Your task to perform on an android device: Open calendar and show me the third week of next month Image 0: 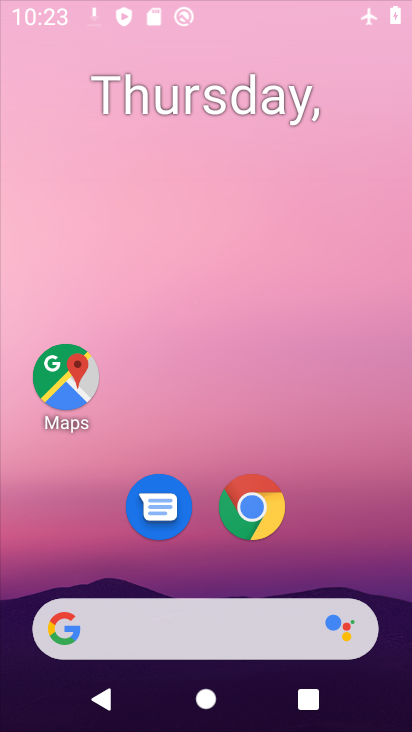
Step 0: click (298, 69)
Your task to perform on an android device: Open calendar and show me the third week of next month Image 1: 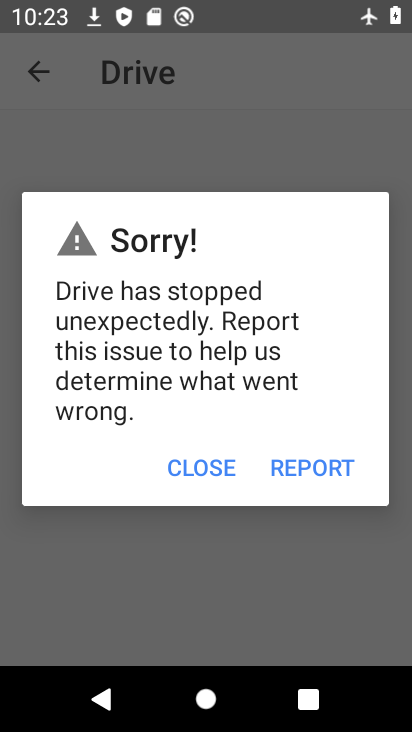
Step 1: press back button
Your task to perform on an android device: Open calendar and show me the third week of next month Image 2: 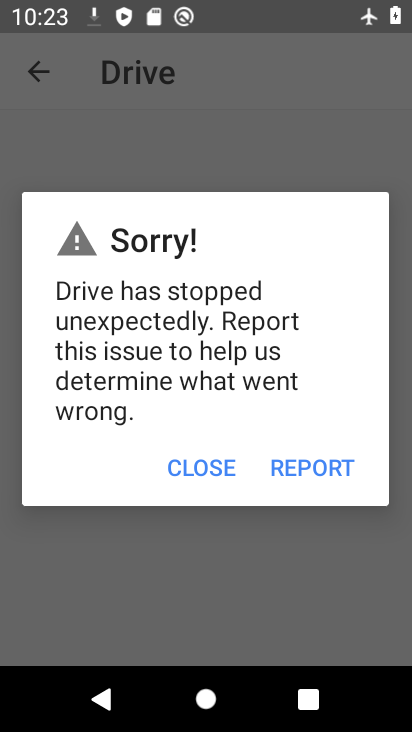
Step 2: press home button
Your task to perform on an android device: Open calendar and show me the third week of next month Image 3: 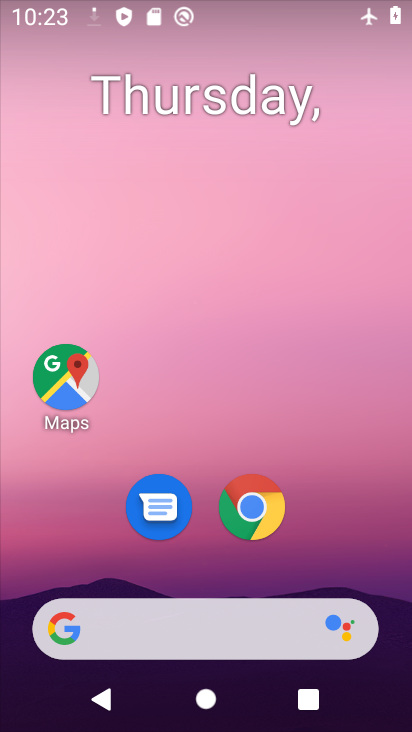
Step 3: drag from (353, 539) to (320, 17)
Your task to perform on an android device: Open calendar and show me the third week of next month Image 4: 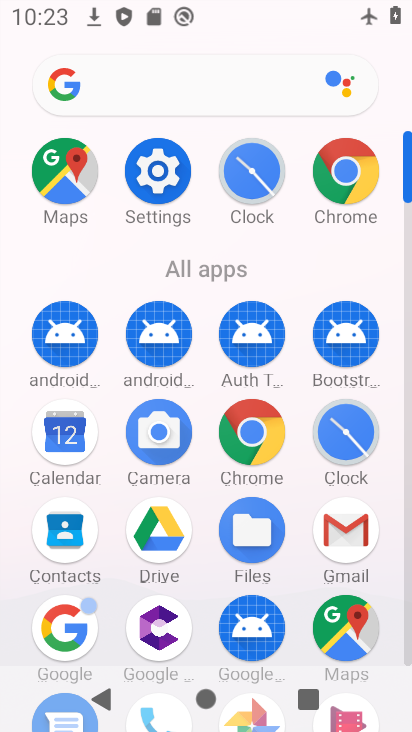
Step 4: drag from (10, 499) to (18, 256)
Your task to perform on an android device: Open calendar and show me the third week of next month Image 5: 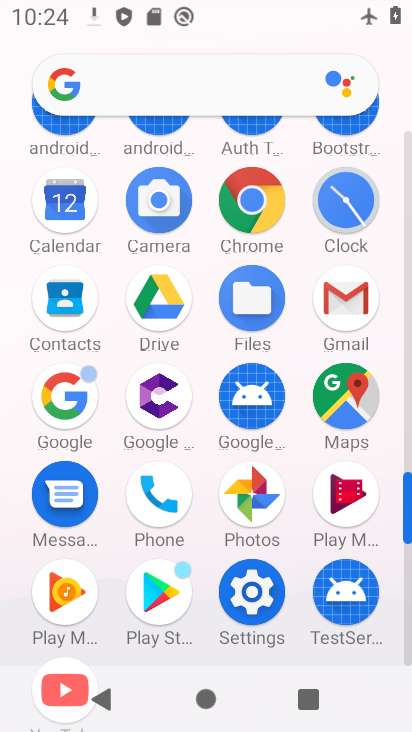
Step 5: click (60, 197)
Your task to perform on an android device: Open calendar and show me the third week of next month Image 6: 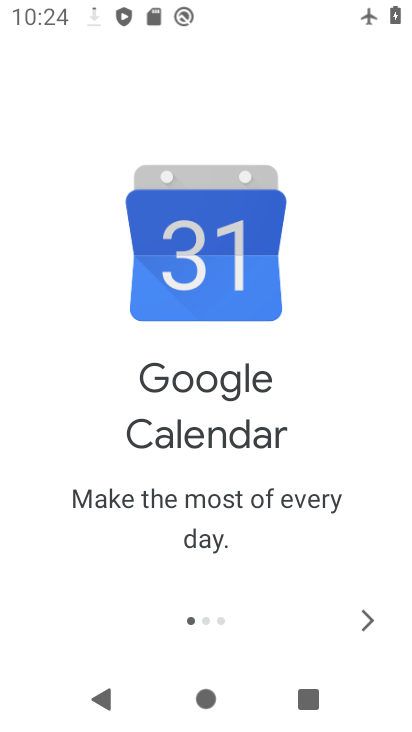
Step 6: click (363, 618)
Your task to perform on an android device: Open calendar and show me the third week of next month Image 7: 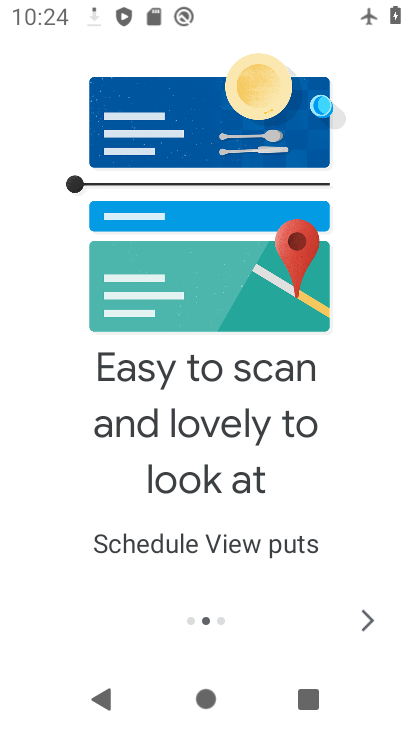
Step 7: click (358, 618)
Your task to perform on an android device: Open calendar and show me the third week of next month Image 8: 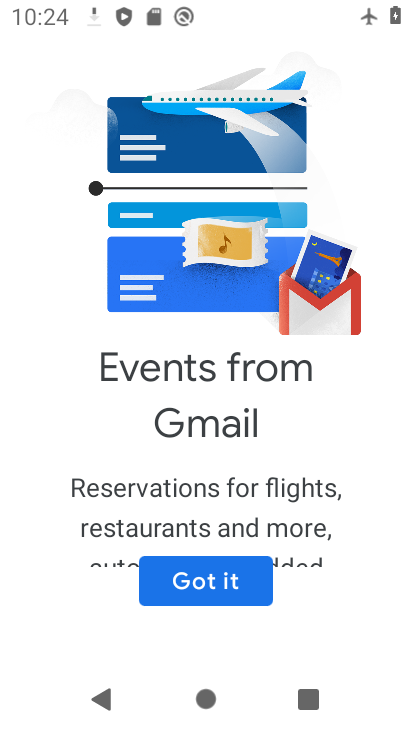
Step 8: click (358, 618)
Your task to perform on an android device: Open calendar and show me the third week of next month Image 9: 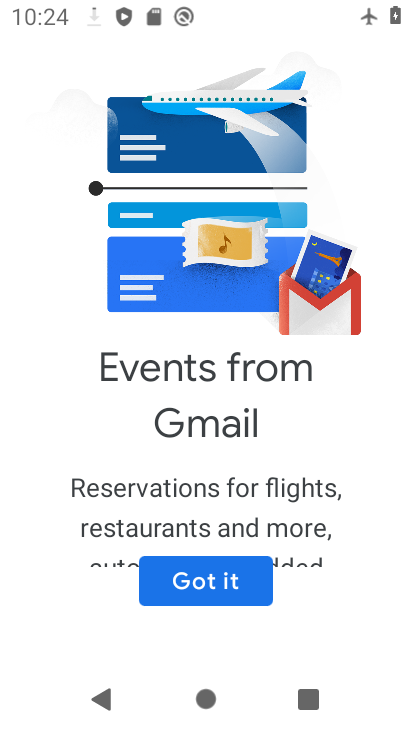
Step 9: click (217, 576)
Your task to perform on an android device: Open calendar and show me the third week of next month Image 10: 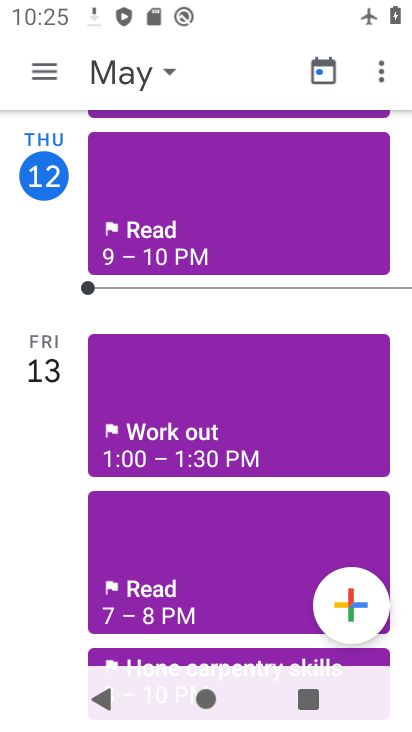
Step 10: click (114, 67)
Your task to perform on an android device: Open calendar and show me the third week of next month Image 11: 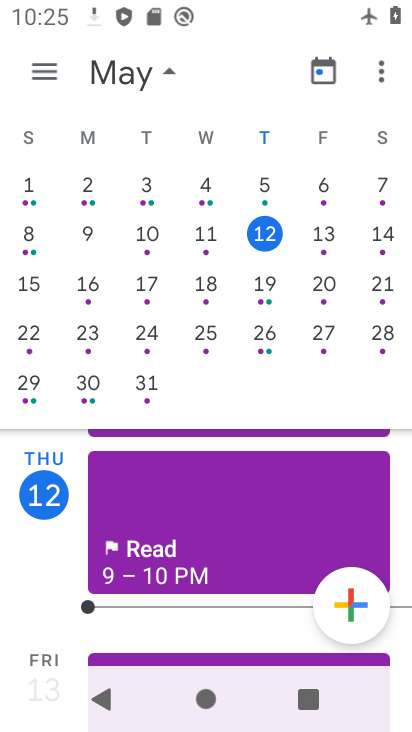
Step 11: drag from (370, 280) to (3, 270)
Your task to perform on an android device: Open calendar and show me the third week of next month Image 12: 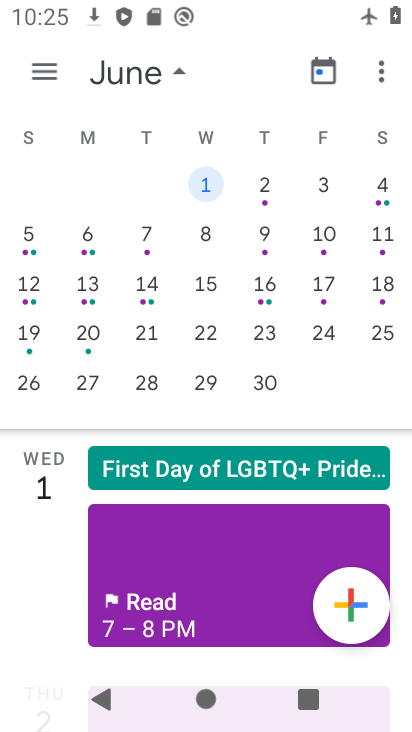
Step 12: click (22, 286)
Your task to perform on an android device: Open calendar and show me the third week of next month Image 13: 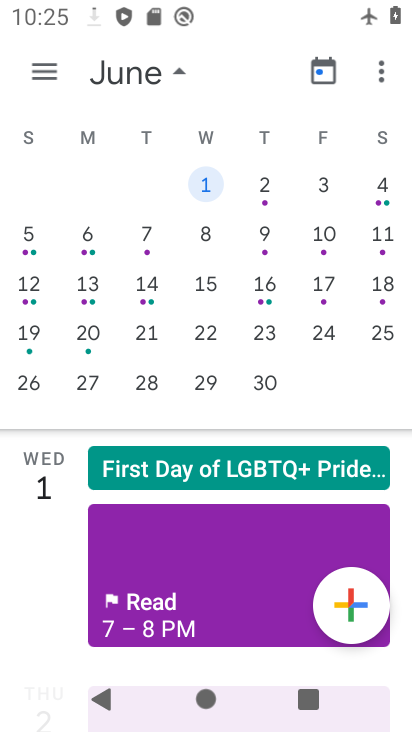
Step 13: click (26, 285)
Your task to perform on an android device: Open calendar and show me the third week of next month Image 14: 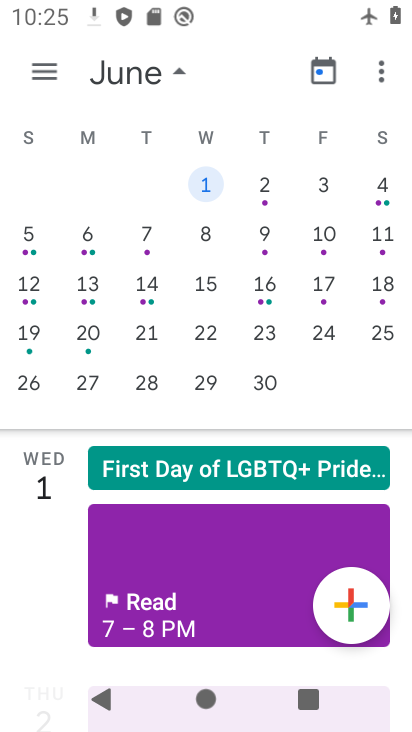
Step 14: click (35, 278)
Your task to perform on an android device: Open calendar and show me the third week of next month Image 15: 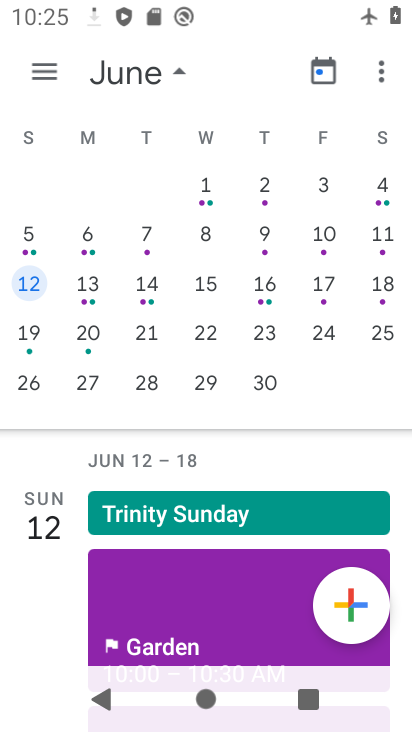
Step 15: click (64, 56)
Your task to perform on an android device: Open calendar and show me the third week of next month Image 16: 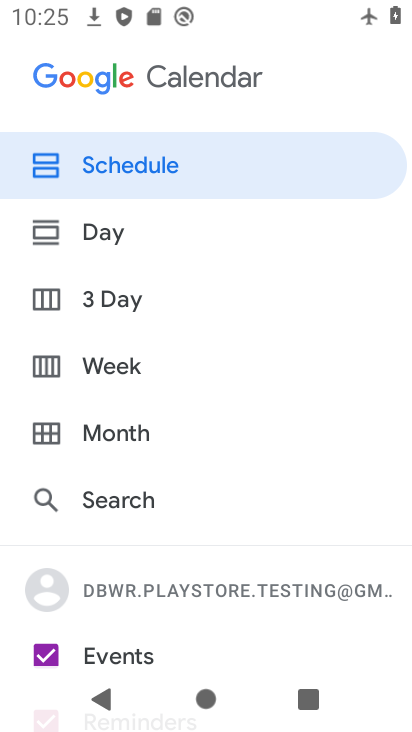
Step 16: click (142, 358)
Your task to perform on an android device: Open calendar and show me the third week of next month Image 17: 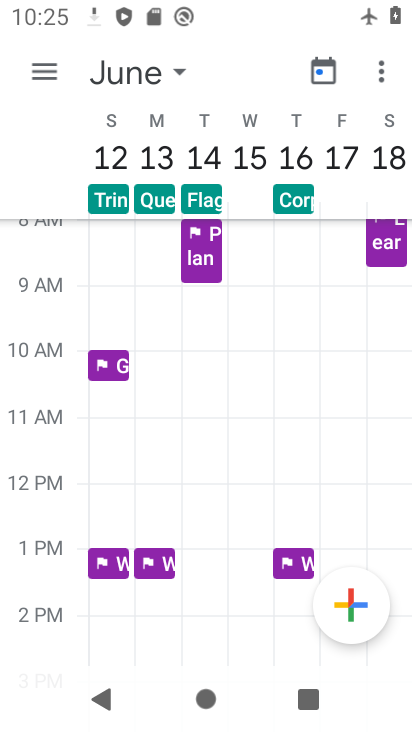
Step 17: task complete